Your task to perform on an android device: Go to ESPN.com Image 0: 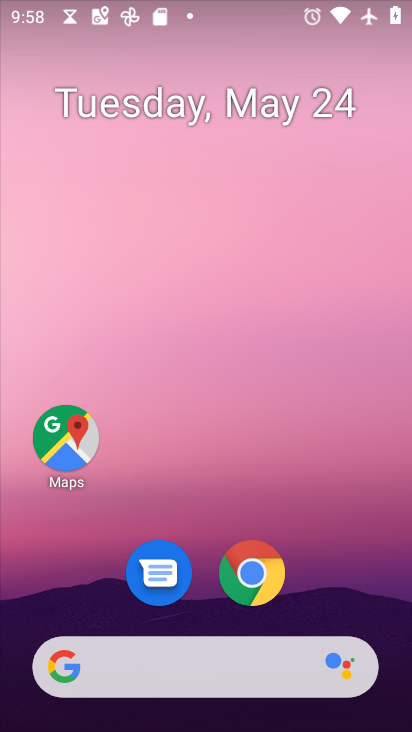
Step 0: drag from (336, 613) to (307, 36)
Your task to perform on an android device: Go to ESPN.com Image 1: 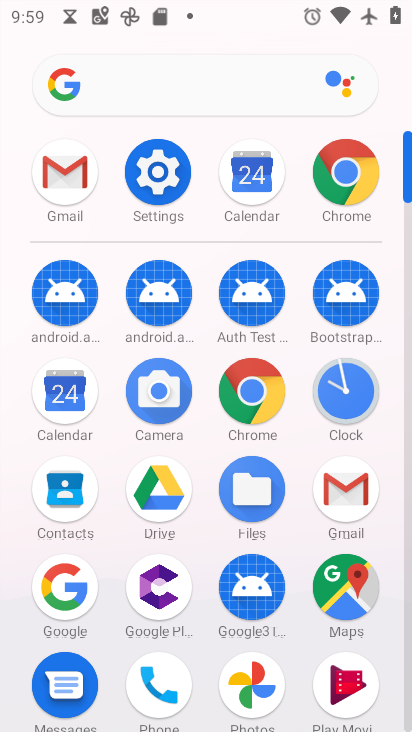
Step 1: click (341, 162)
Your task to perform on an android device: Go to ESPN.com Image 2: 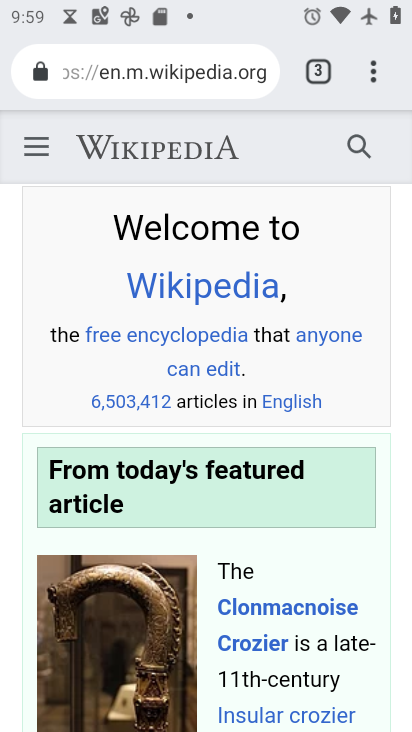
Step 2: click (226, 78)
Your task to perform on an android device: Go to ESPN.com Image 3: 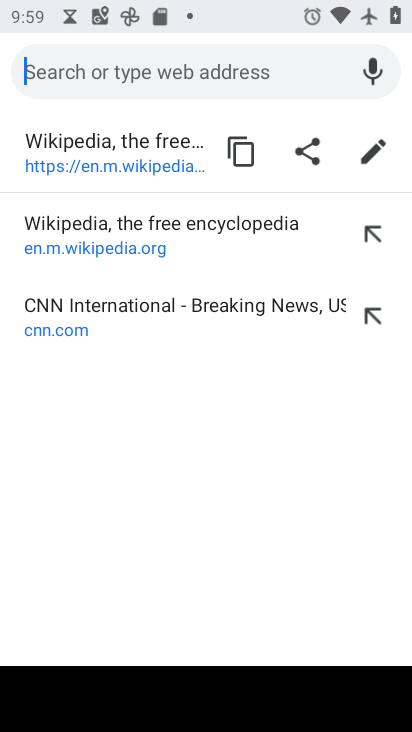
Step 3: type "espn"
Your task to perform on an android device: Go to ESPN.com Image 4: 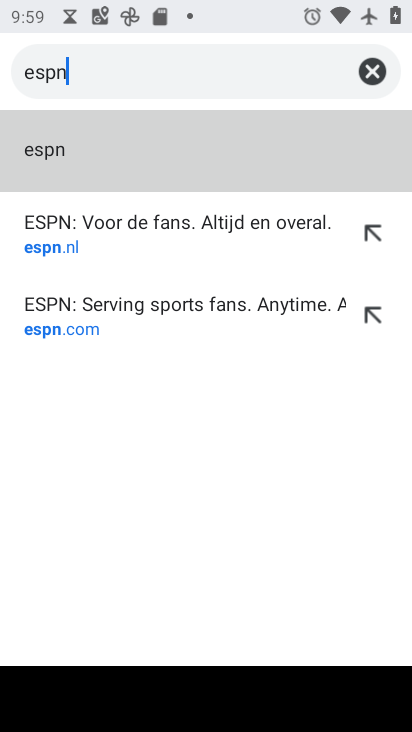
Step 4: click (65, 221)
Your task to perform on an android device: Go to ESPN.com Image 5: 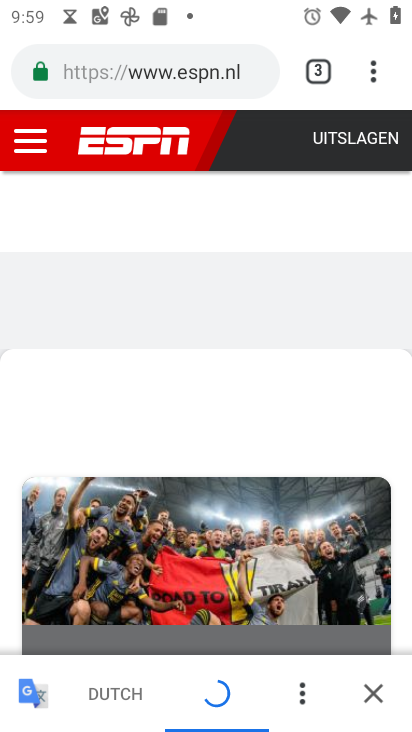
Step 5: click (375, 712)
Your task to perform on an android device: Go to ESPN.com Image 6: 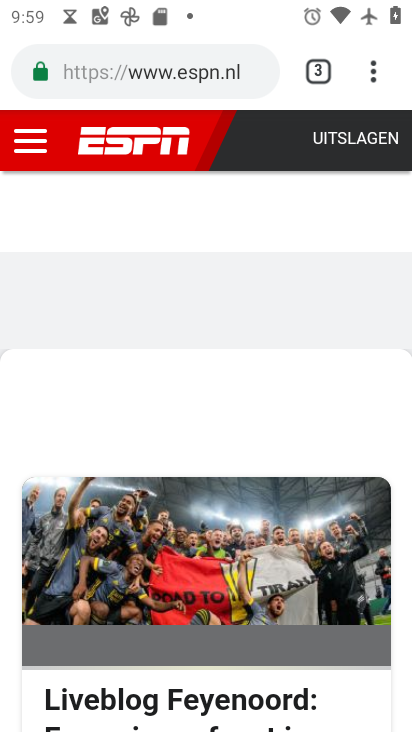
Step 6: task complete